Your task to perform on an android device: Search for the best rated headphones on Walmart Image 0: 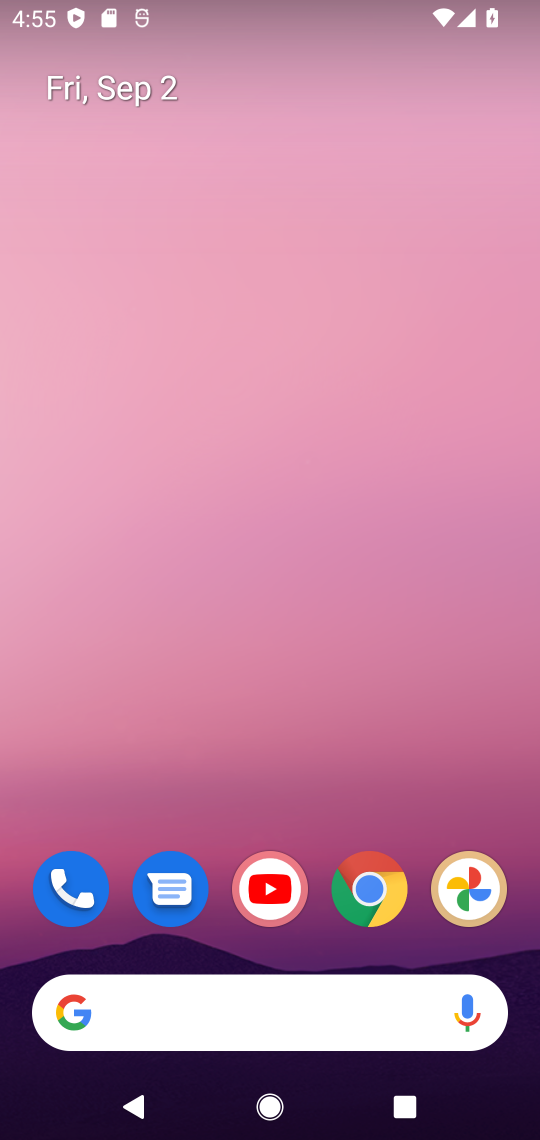
Step 0: click (393, 866)
Your task to perform on an android device: Search for the best rated headphones on Walmart Image 1: 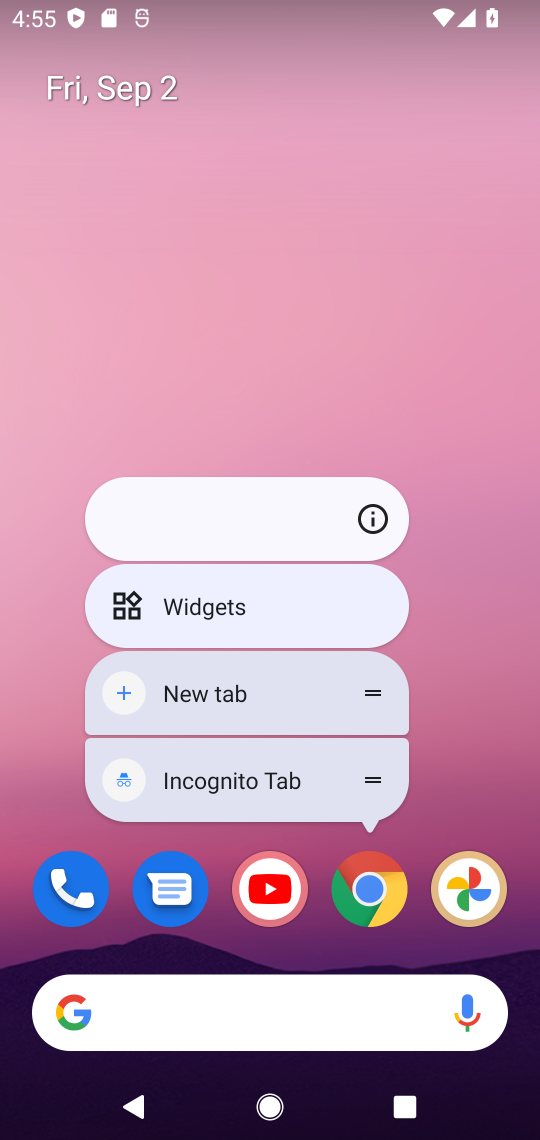
Step 1: click (384, 877)
Your task to perform on an android device: Search for the best rated headphones on Walmart Image 2: 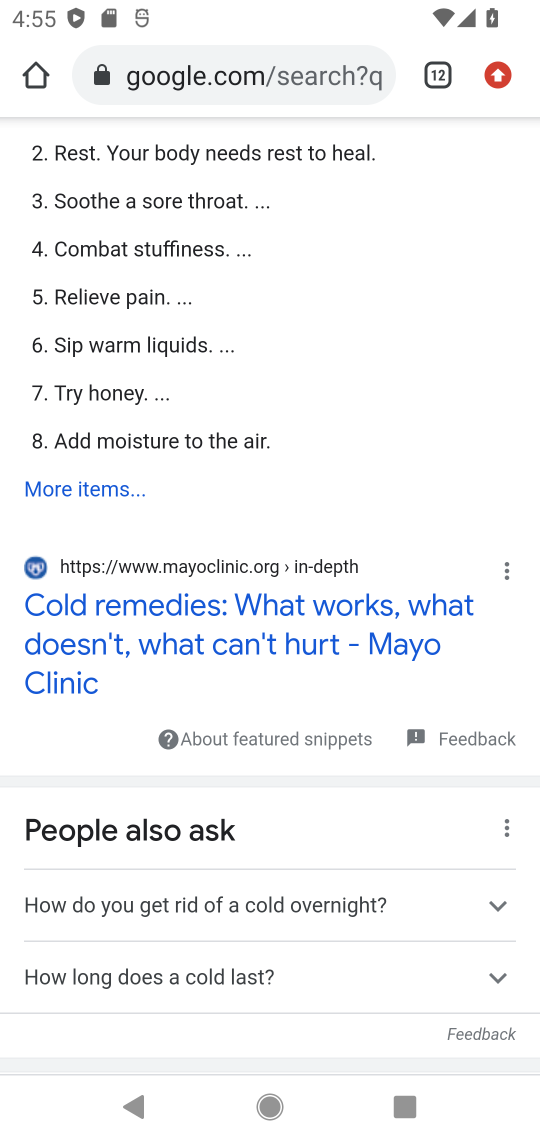
Step 2: click (449, 81)
Your task to perform on an android device: Search for the best rated headphones on Walmart Image 3: 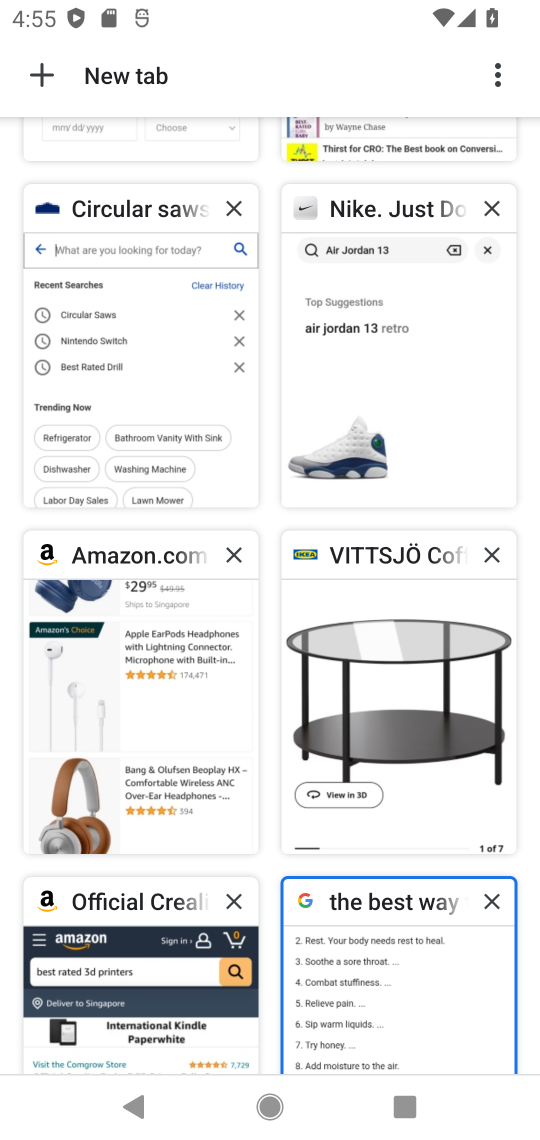
Step 3: click (36, 62)
Your task to perform on an android device: Search for the best rated headphones on Walmart Image 4: 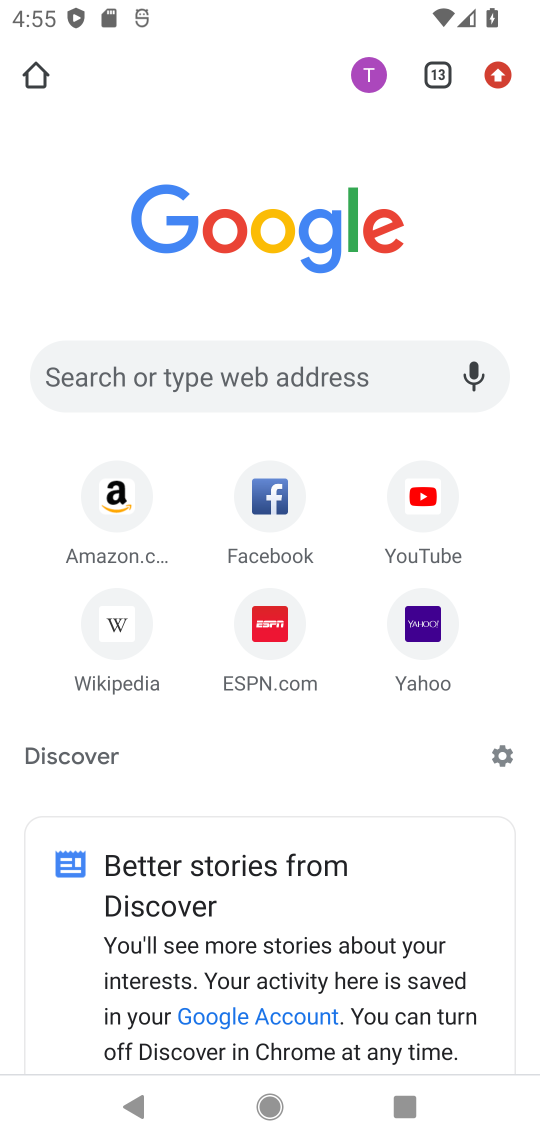
Step 4: click (186, 387)
Your task to perform on an android device: Search for the best rated headphones on Walmart Image 5: 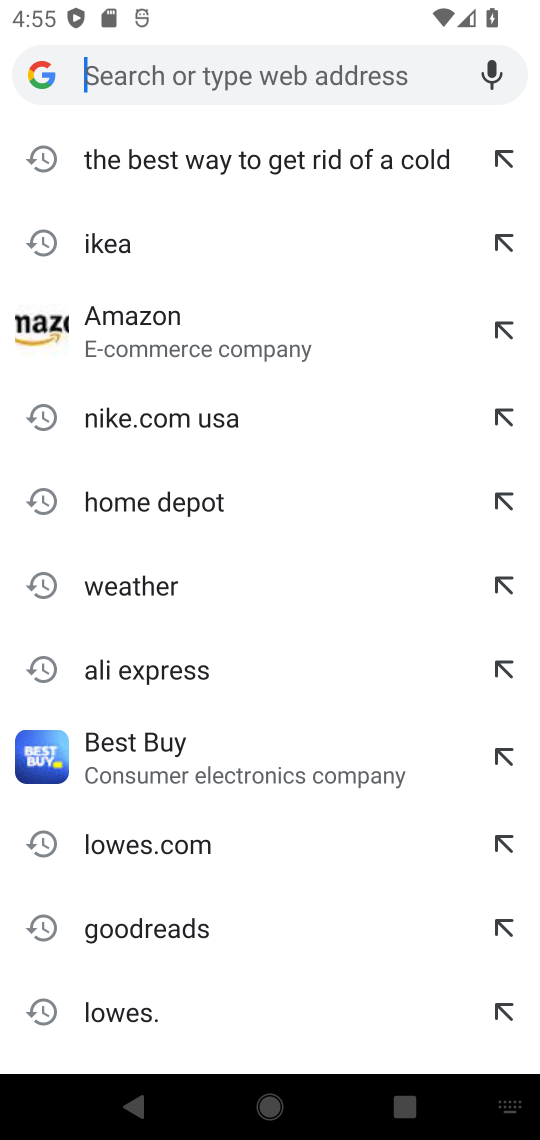
Step 5: type "Walmart"
Your task to perform on an android device: Search for the best rated headphones on Walmart Image 6: 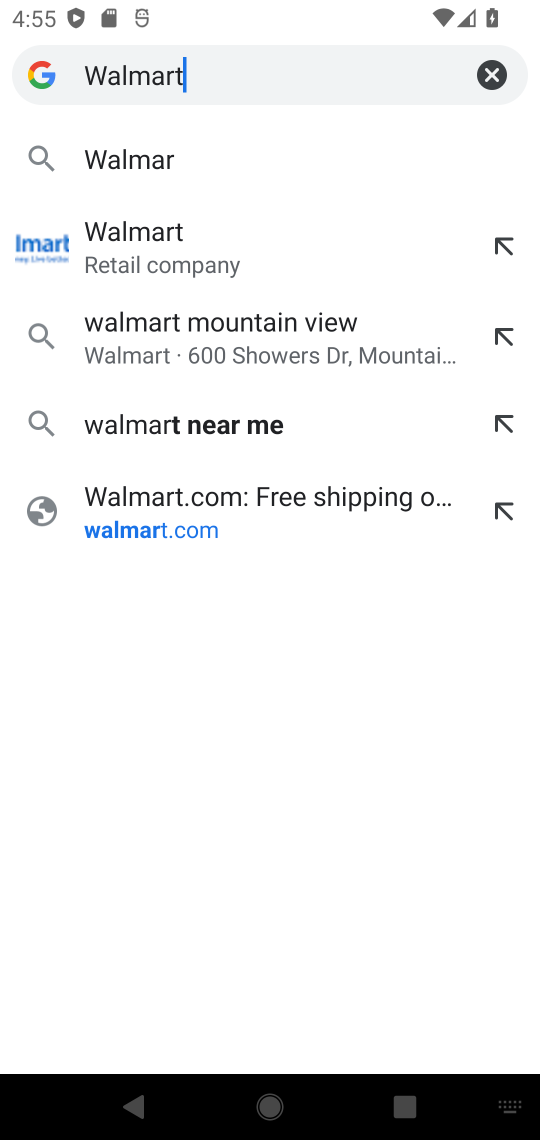
Step 6: type ""
Your task to perform on an android device: Search for the best rated headphones on Walmart Image 7: 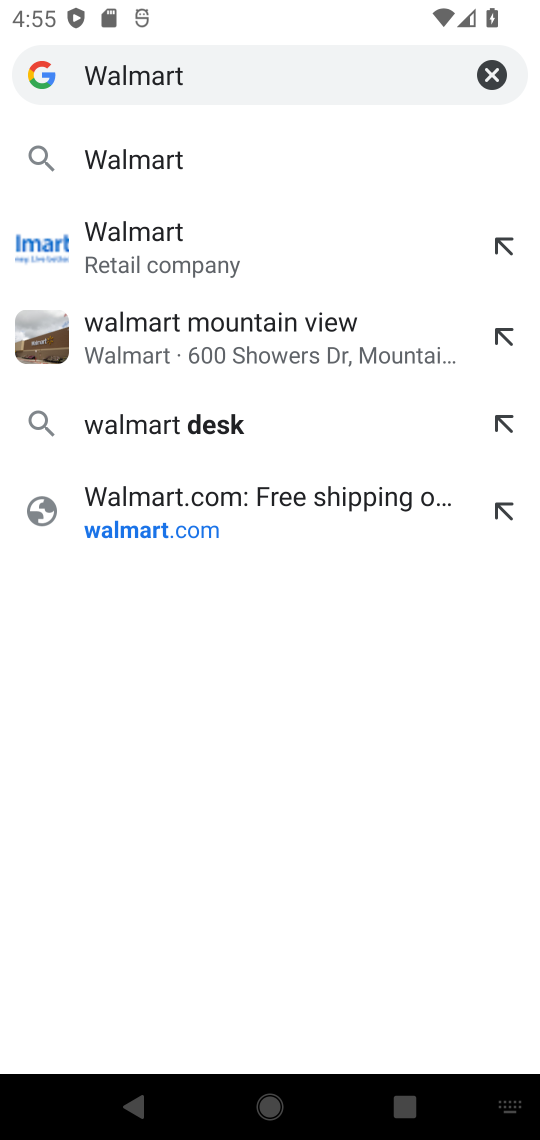
Step 7: click (221, 163)
Your task to perform on an android device: Search for the best rated headphones on Walmart Image 8: 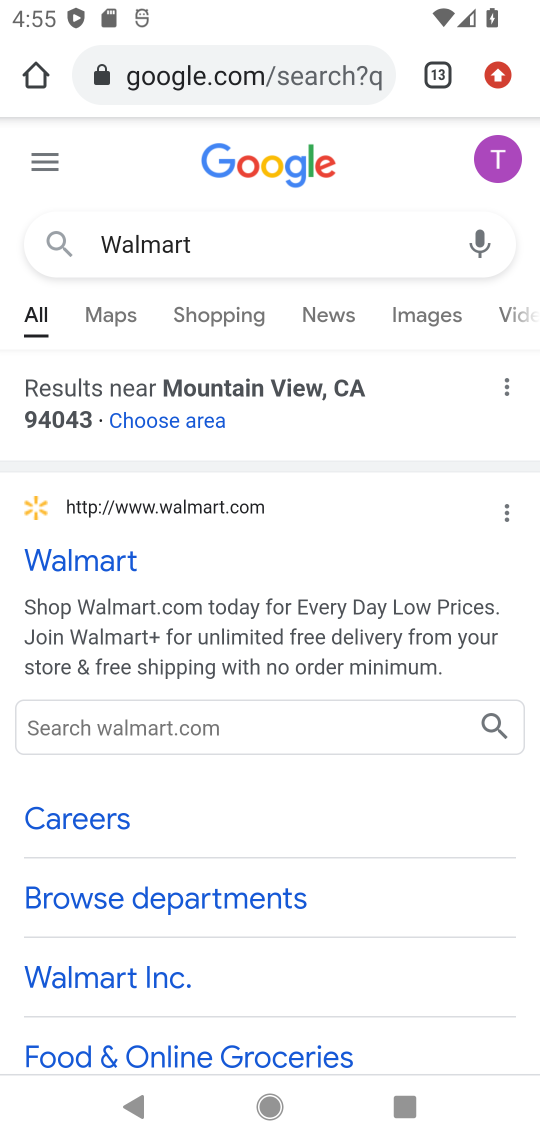
Step 8: click (88, 571)
Your task to perform on an android device: Search for the best rated headphones on Walmart Image 9: 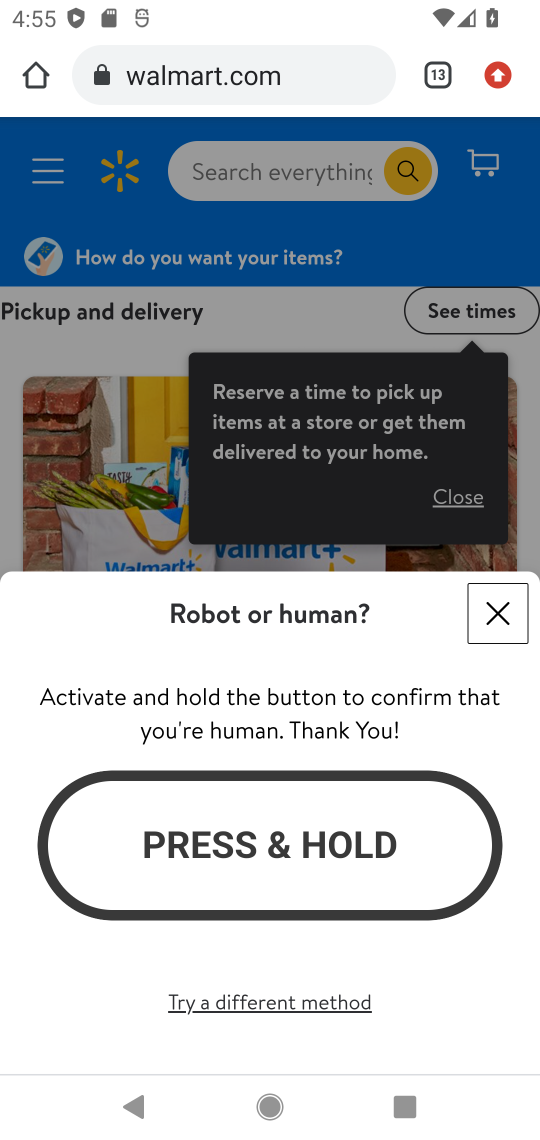
Step 9: click (503, 604)
Your task to perform on an android device: Search for the best rated headphones on Walmart Image 10: 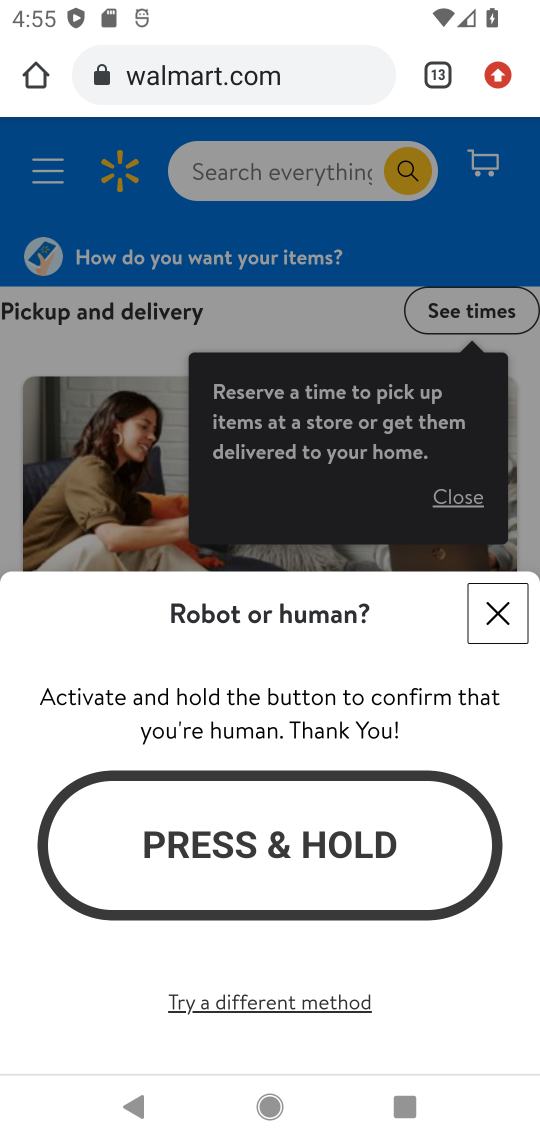
Step 10: click (308, 179)
Your task to perform on an android device: Search for the best rated headphones on Walmart Image 11: 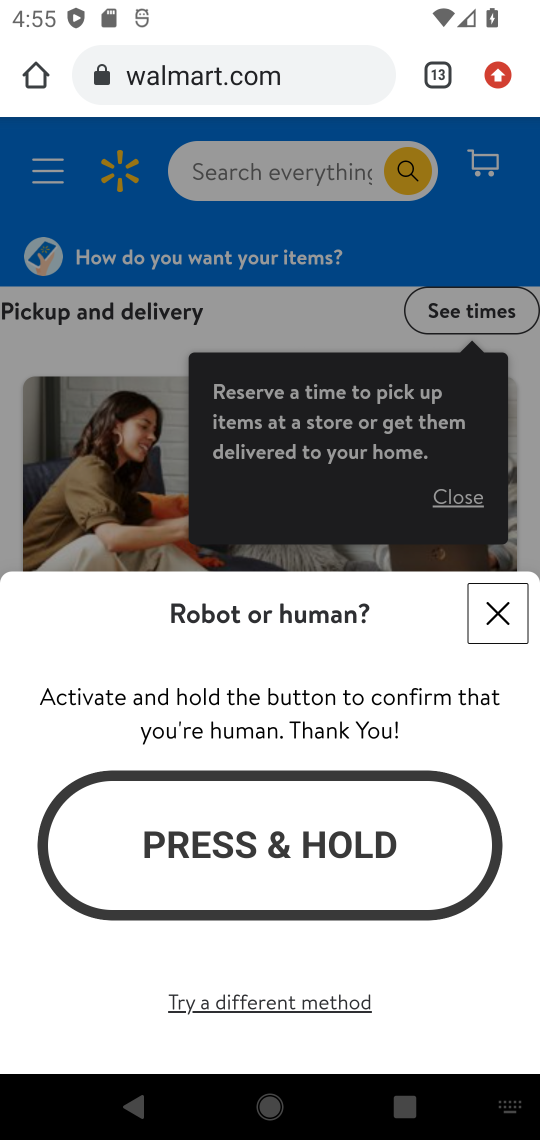
Step 11: click (306, 164)
Your task to perform on an android device: Search for the best rated headphones on Walmart Image 12: 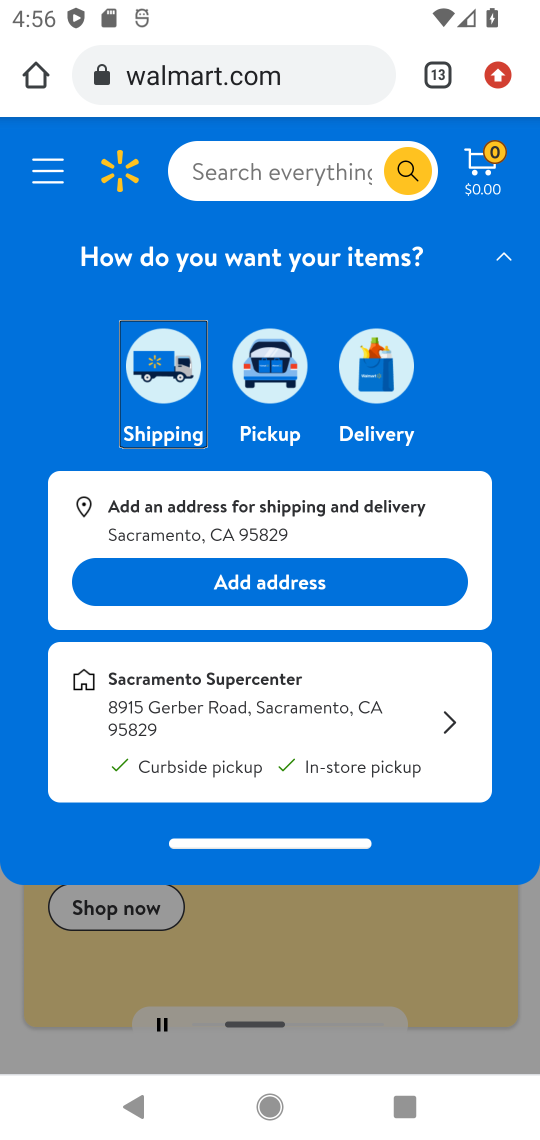
Step 12: type "best rated headphones "
Your task to perform on an android device: Search for the best rated headphones on Walmart Image 13: 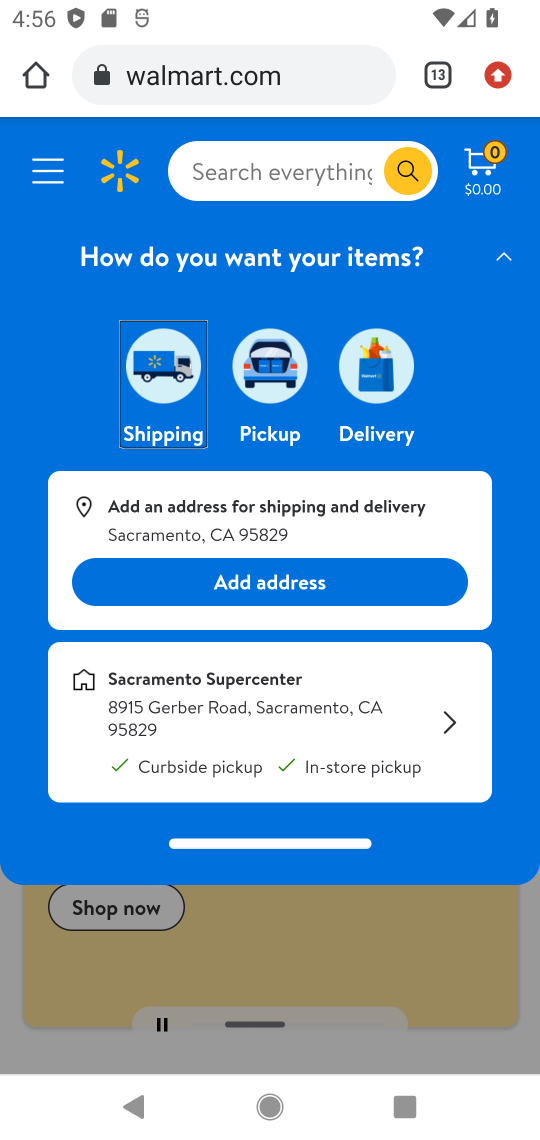
Step 13: type ""
Your task to perform on an android device: Search for the best rated headphones on Walmart Image 14: 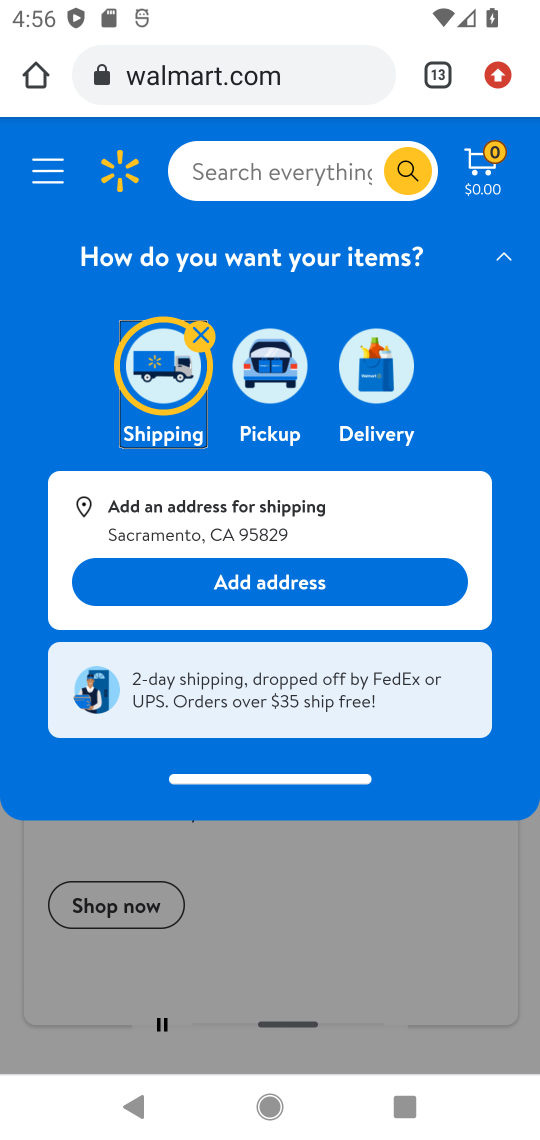
Step 14: click (322, 149)
Your task to perform on an android device: Search for the best rated headphones on Walmart Image 15: 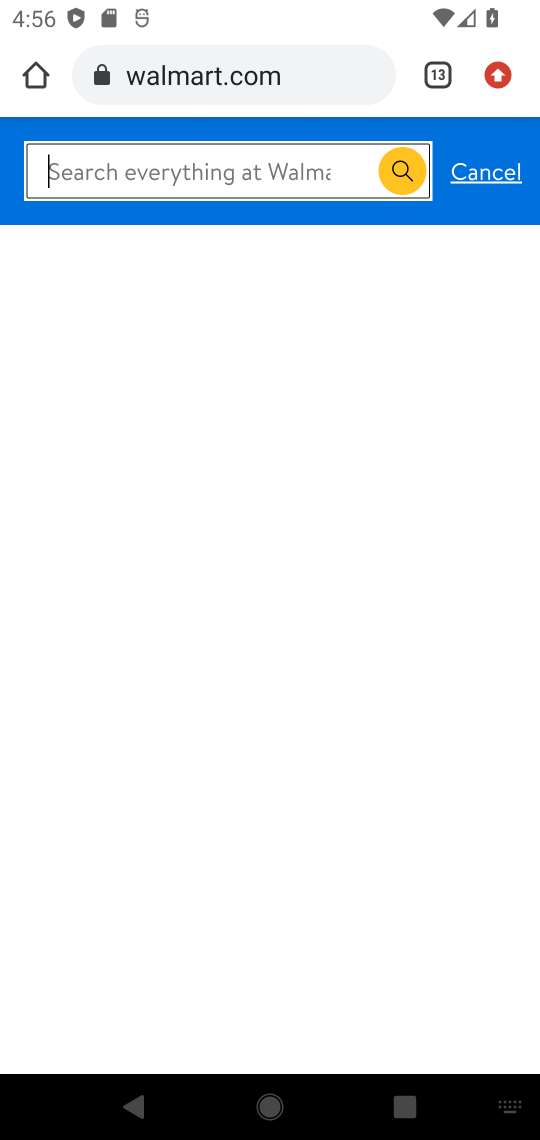
Step 15: type "best rated headphones on Walmart"
Your task to perform on an android device: Search for the best rated headphones on Walmart Image 16: 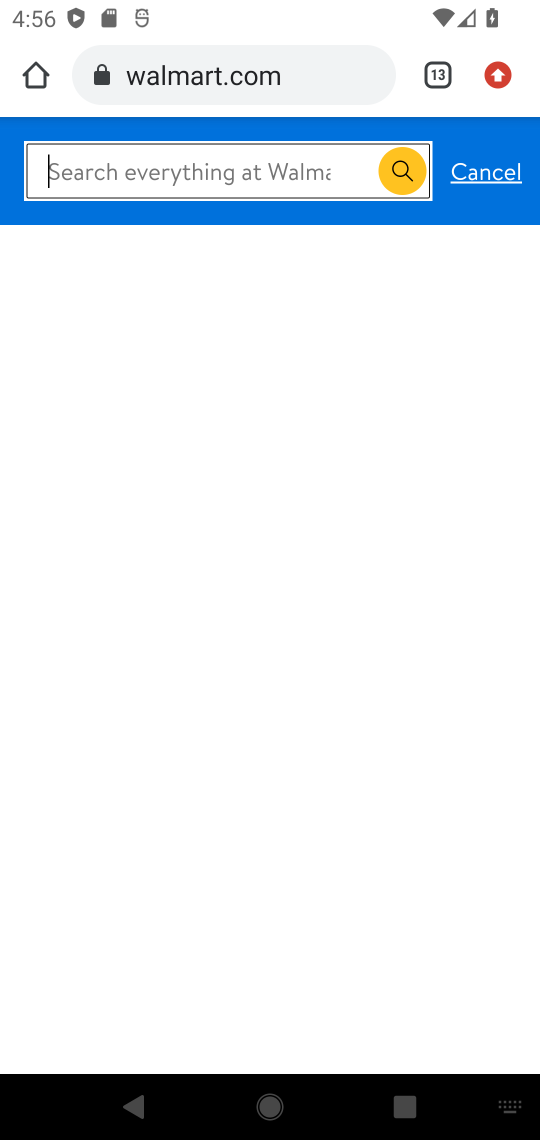
Step 16: type ""
Your task to perform on an android device: Search for the best rated headphones on Walmart Image 17: 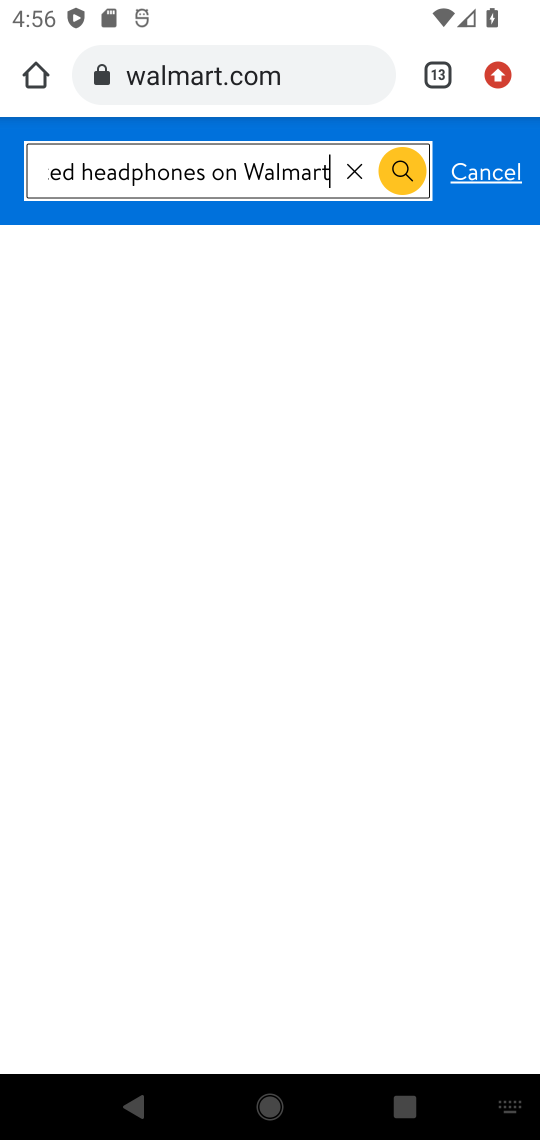
Step 17: click (404, 165)
Your task to perform on an android device: Search for the best rated headphones on Walmart Image 18: 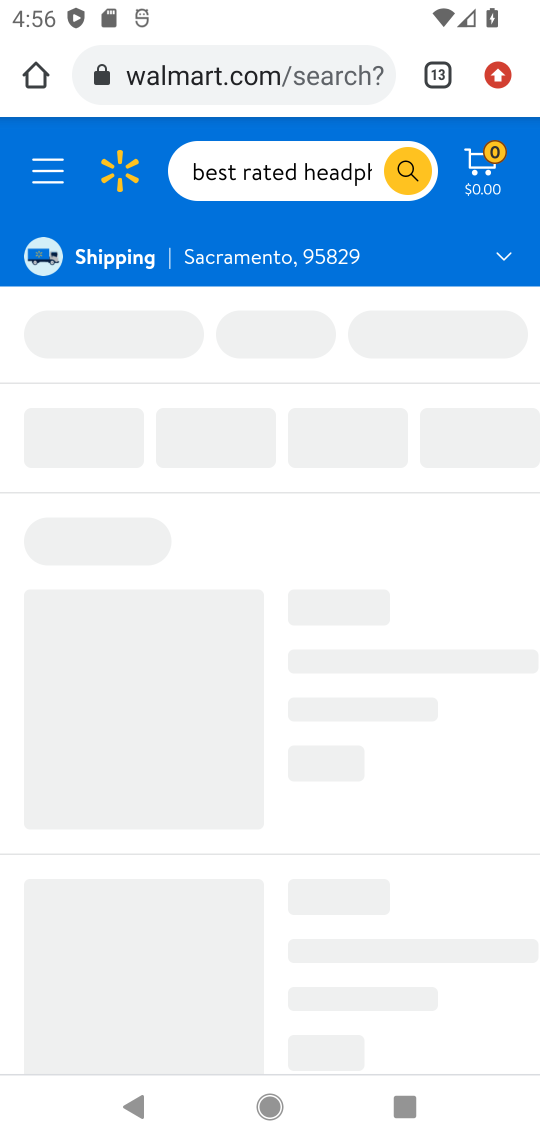
Step 18: drag from (368, 924) to (404, 586)
Your task to perform on an android device: Search for the best rated headphones on Walmart Image 19: 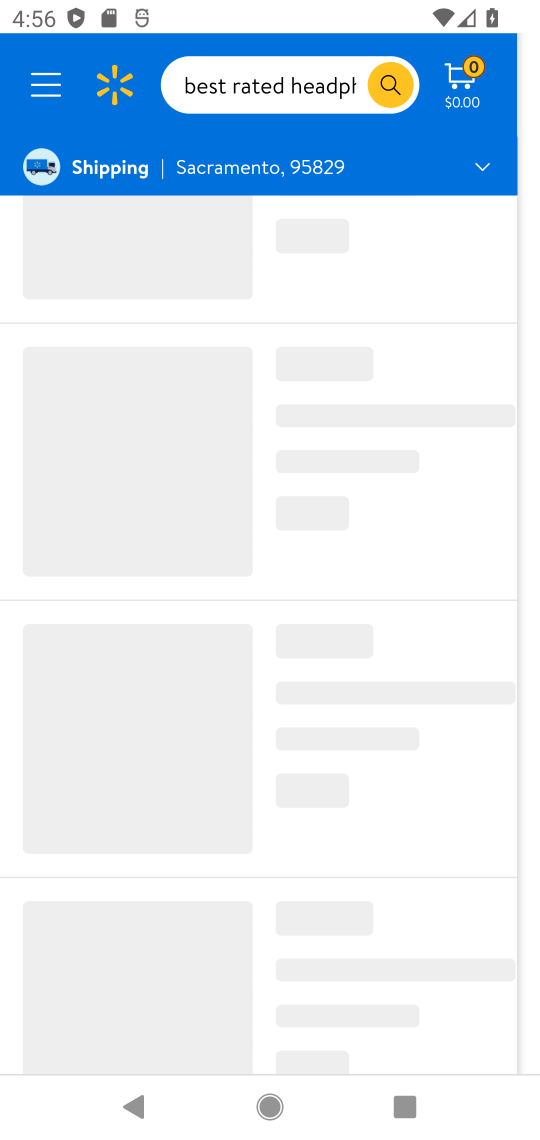
Step 19: drag from (397, 403) to (483, 370)
Your task to perform on an android device: Search for the best rated headphones on Walmart Image 20: 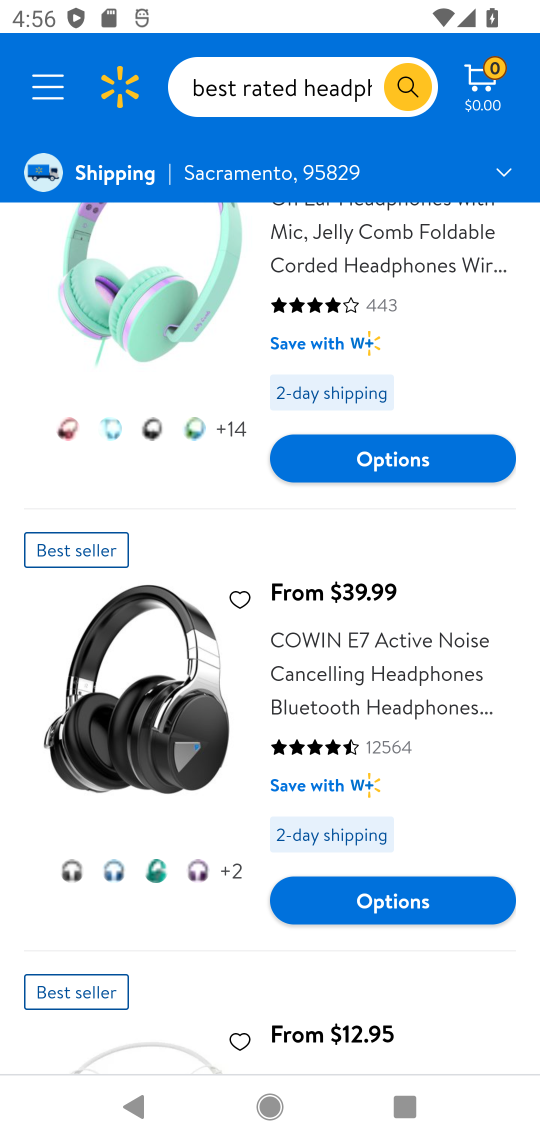
Step 20: drag from (375, 997) to (455, 333)
Your task to perform on an android device: Search for the best rated headphones on Walmart Image 21: 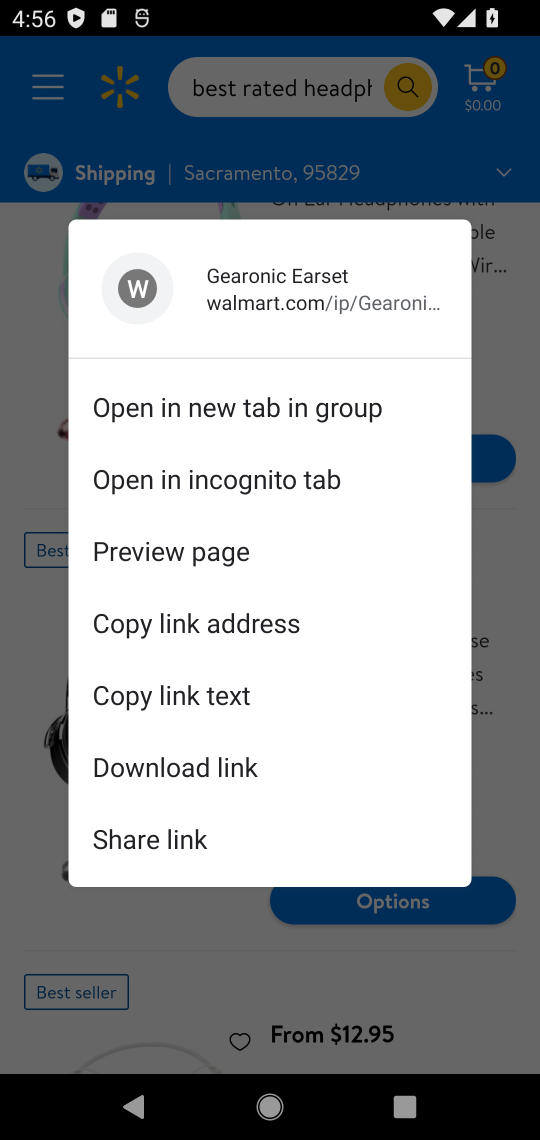
Step 21: click (501, 474)
Your task to perform on an android device: Search for the best rated headphones on Walmart Image 22: 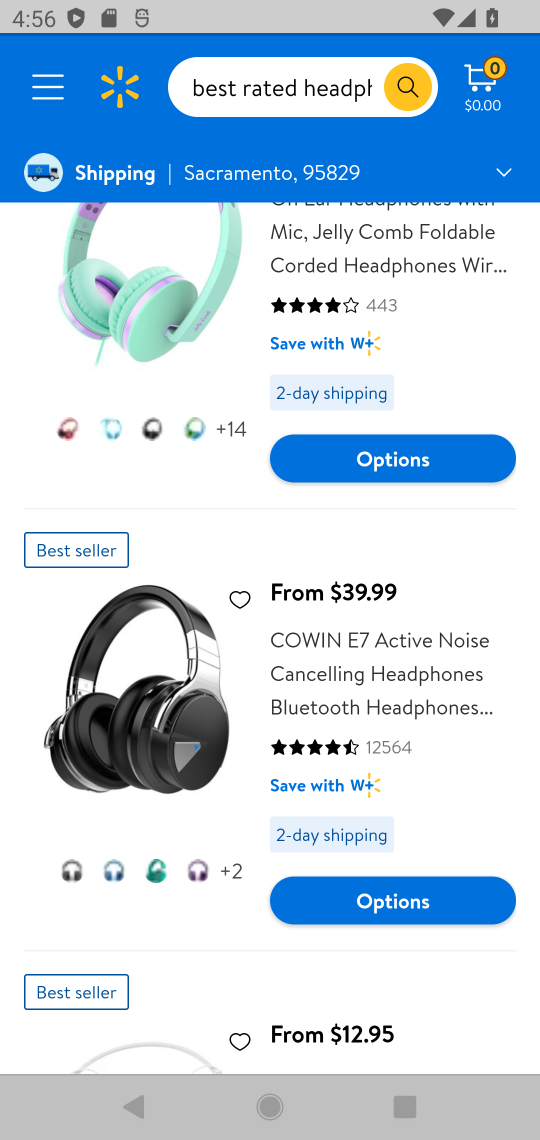
Step 22: task complete